Your task to perform on an android device: Open my contact list Image 0: 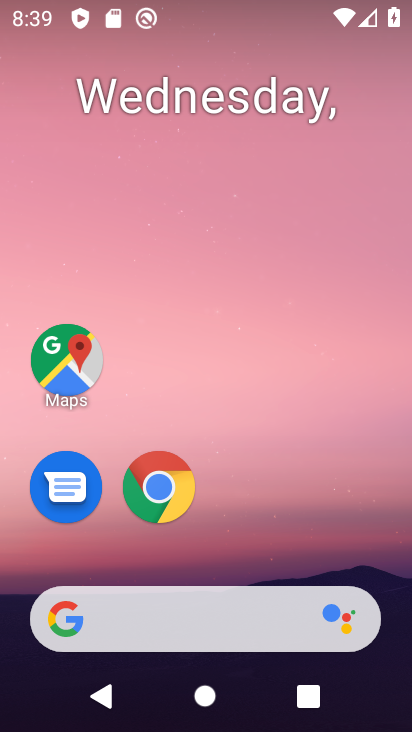
Step 0: drag from (182, 553) to (247, 34)
Your task to perform on an android device: Open my contact list Image 1: 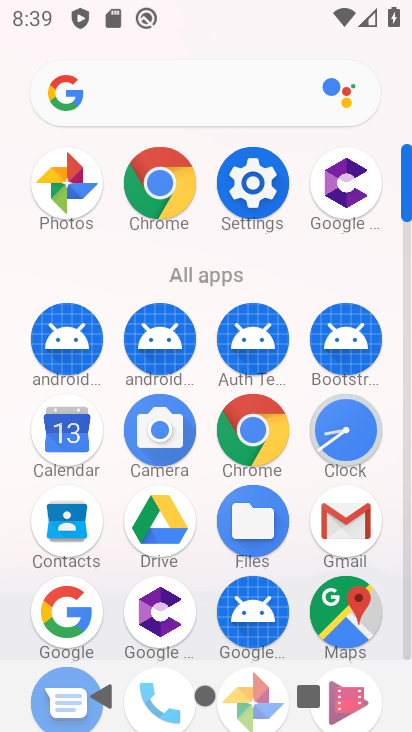
Step 1: click (79, 524)
Your task to perform on an android device: Open my contact list Image 2: 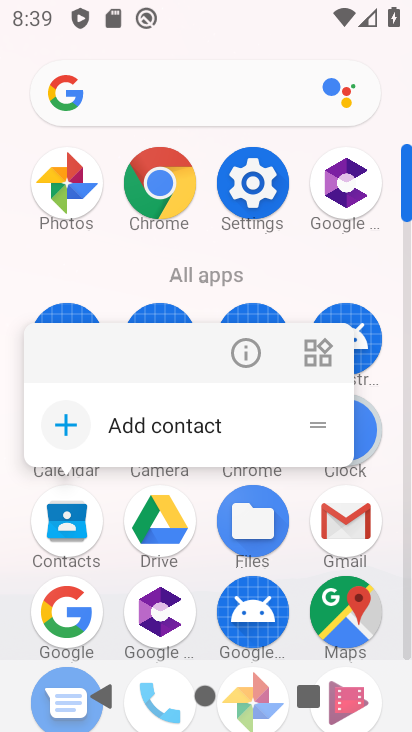
Step 2: click (77, 523)
Your task to perform on an android device: Open my contact list Image 3: 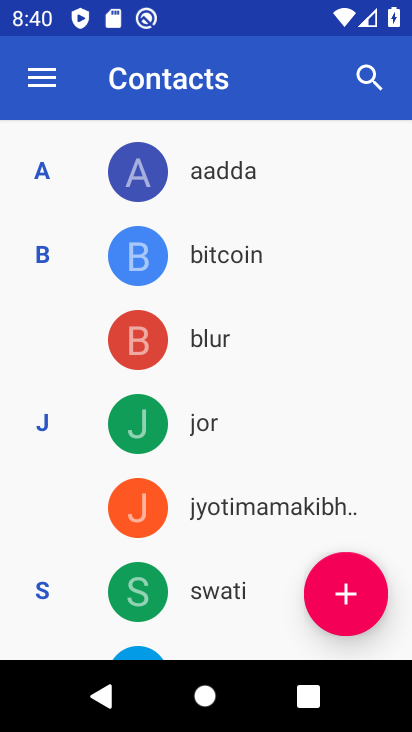
Step 3: task complete